Your task to perform on an android device: make emails show in primary in the gmail app Image 0: 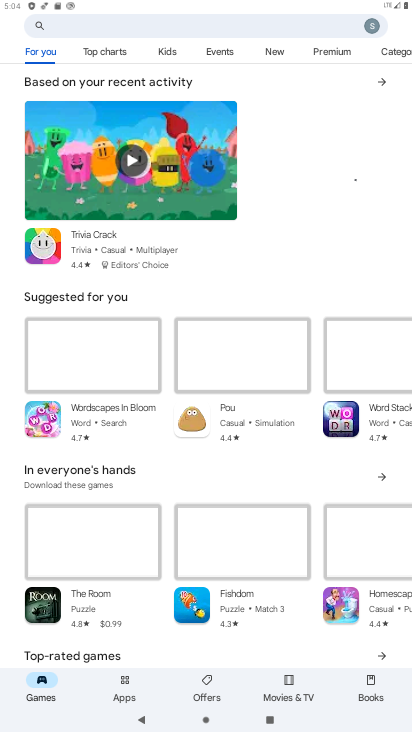
Step 0: press back button
Your task to perform on an android device: make emails show in primary in the gmail app Image 1: 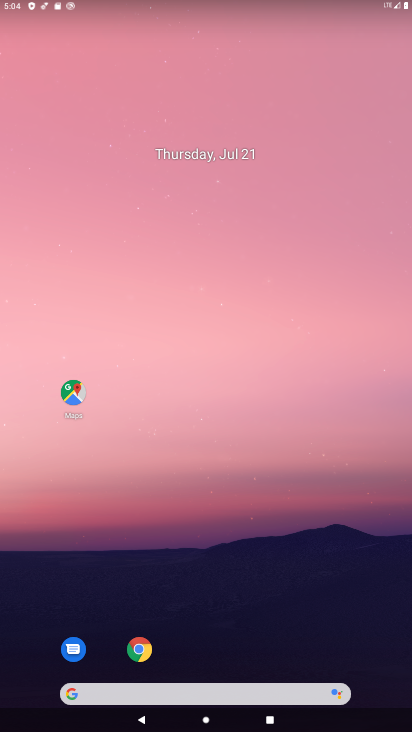
Step 1: drag from (190, 645) to (249, 76)
Your task to perform on an android device: make emails show in primary in the gmail app Image 2: 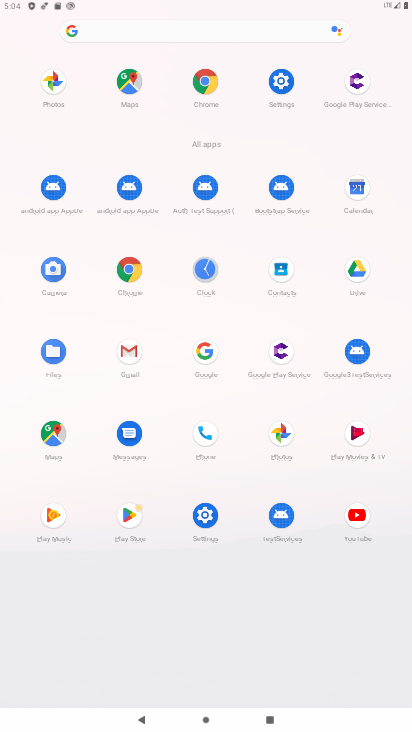
Step 2: click (134, 353)
Your task to perform on an android device: make emails show in primary in the gmail app Image 3: 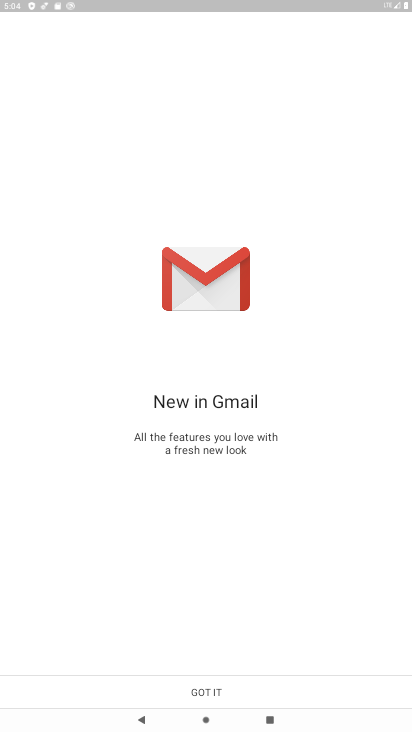
Step 3: click (202, 699)
Your task to perform on an android device: make emails show in primary in the gmail app Image 4: 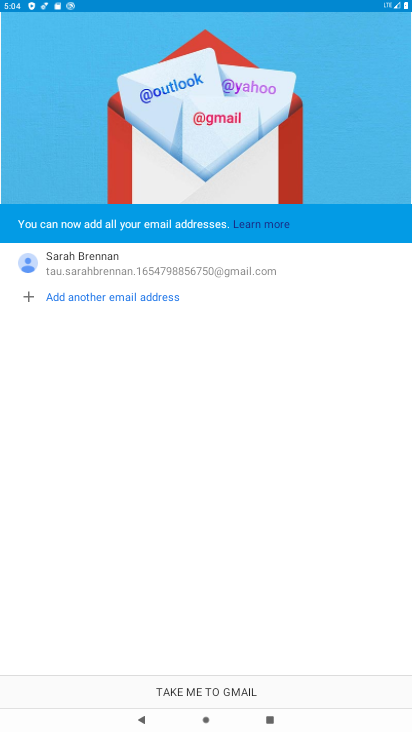
Step 4: click (199, 688)
Your task to perform on an android device: make emails show in primary in the gmail app Image 5: 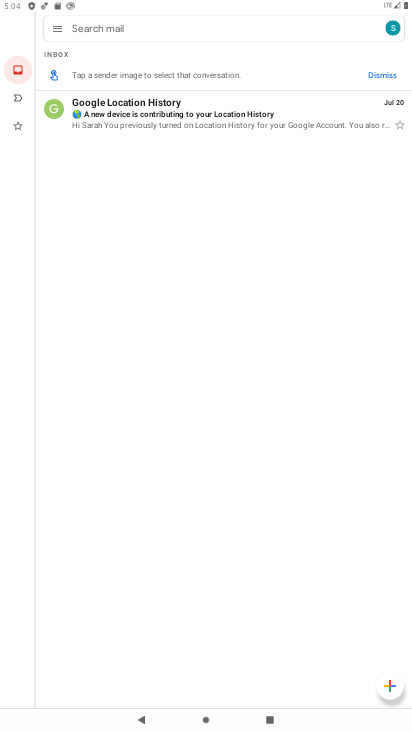
Step 5: click (54, 27)
Your task to perform on an android device: make emails show in primary in the gmail app Image 6: 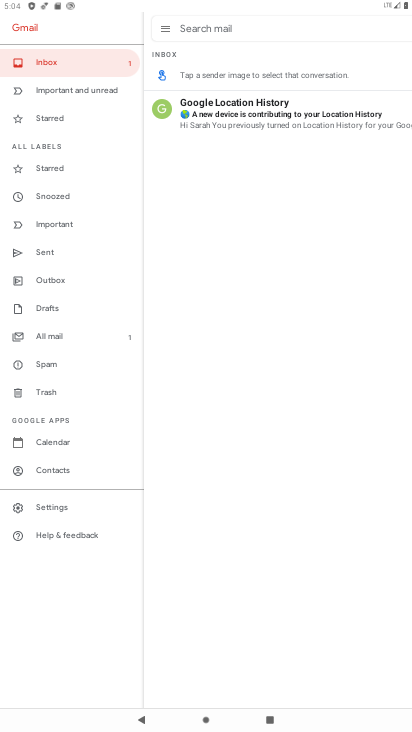
Step 6: click (45, 507)
Your task to perform on an android device: make emails show in primary in the gmail app Image 7: 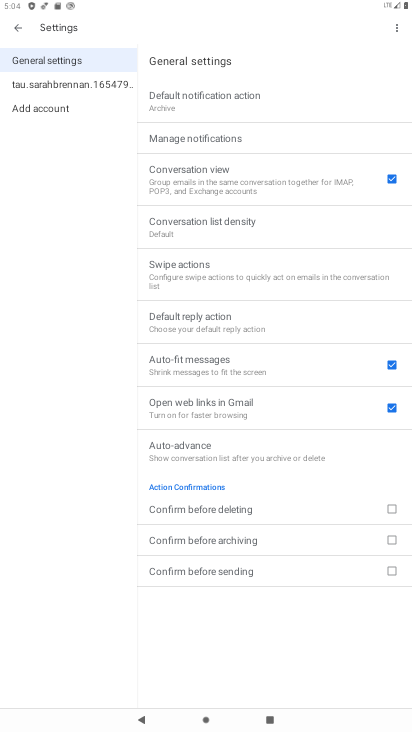
Step 7: click (60, 79)
Your task to perform on an android device: make emails show in primary in the gmail app Image 8: 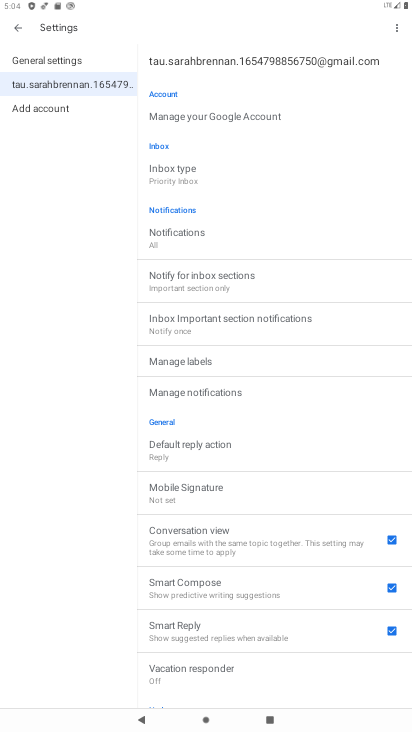
Step 8: task complete